Your task to perform on an android device: Do I have any events today? Image 0: 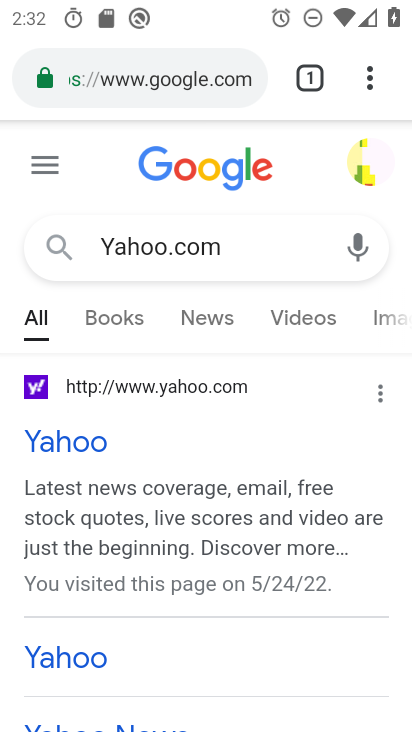
Step 0: press home button
Your task to perform on an android device: Do I have any events today? Image 1: 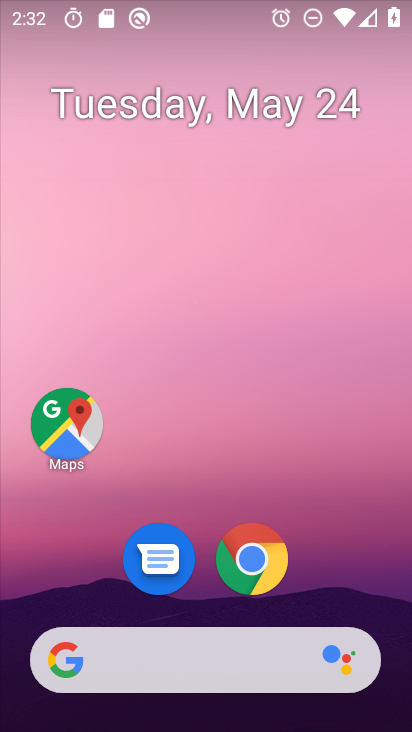
Step 1: drag from (400, 692) to (399, 264)
Your task to perform on an android device: Do I have any events today? Image 2: 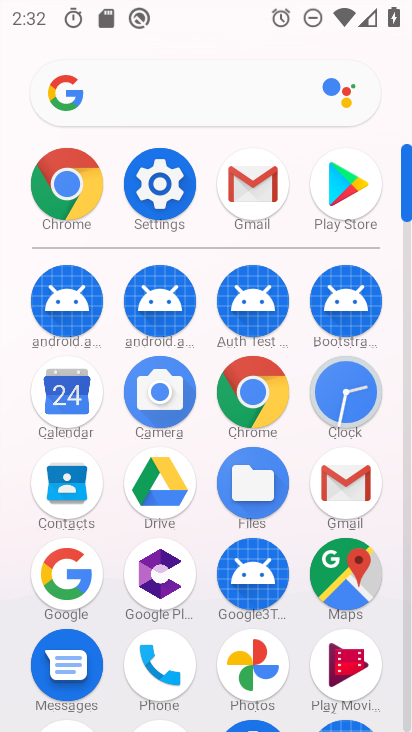
Step 2: click (58, 409)
Your task to perform on an android device: Do I have any events today? Image 3: 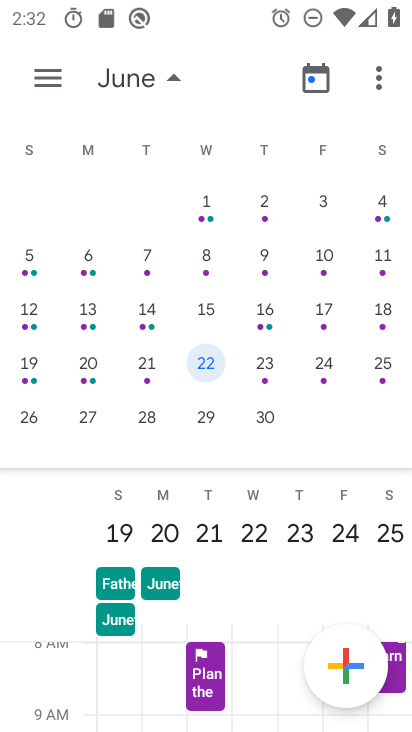
Step 3: drag from (27, 202) to (399, 242)
Your task to perform on an android device: Do I have any events today? Image 4: 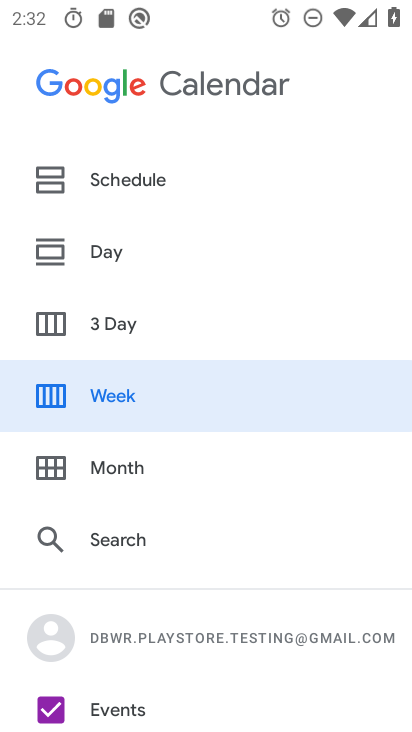
Step 4: click (86, 254)
Your task to perform on an android device: Do I have any events today? Image 5: 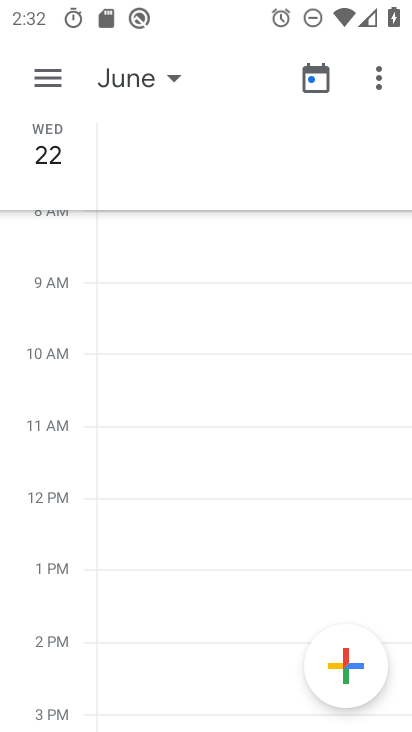
Step 5: click (170, 73)
Your task to perform on an android device: Do I have any events today? Image 6: 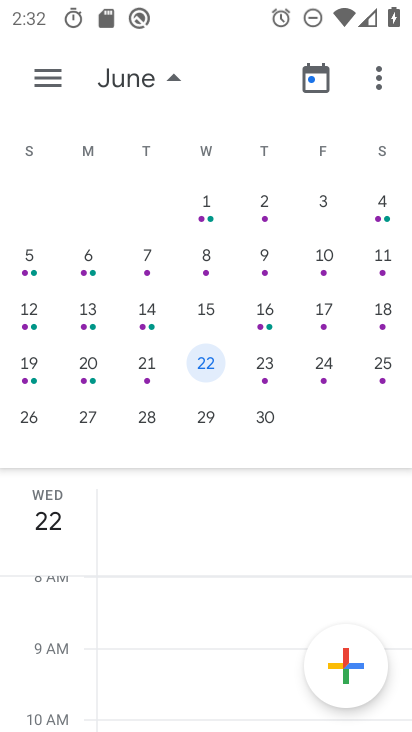
Step 6: drag from (41, 215) to (398, 211)
Your task to perform on an android device: Do I have any events today? Image 7: 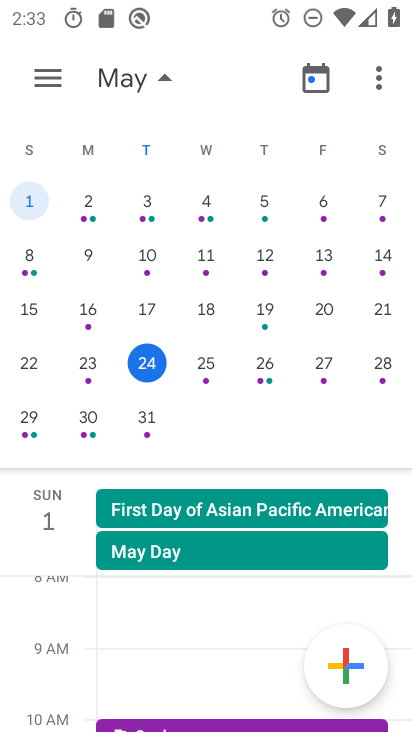
Step 7: drag from (42, 155) to (135, 173)
Your task to perform on an android device: Do I have any events today? Image 8: 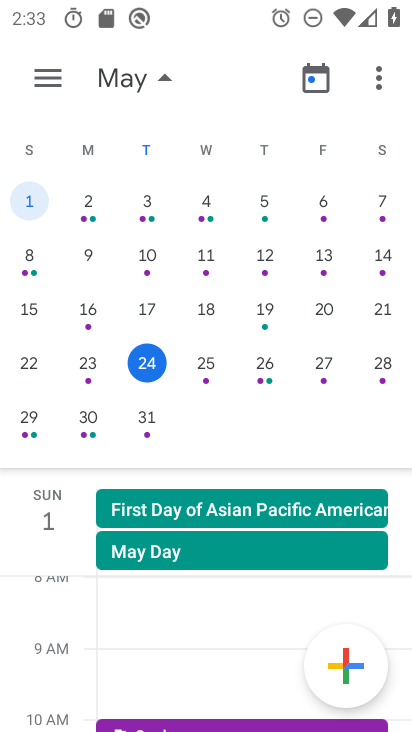
Step 8: click (37, 79)
Your task to perform on an android device: Do I have any events today? Image 9: 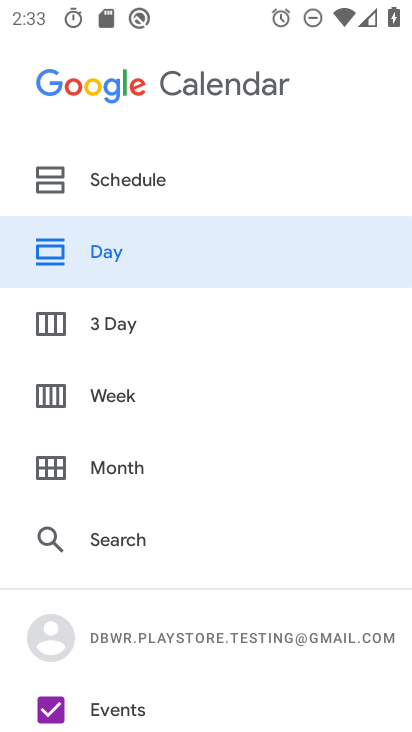
Step 9: click (121, 253)
Your task to perform on an android device: Do I have any events today? Image 10: 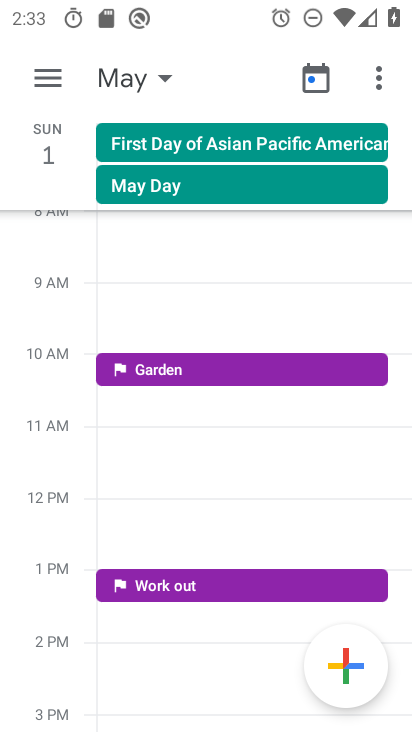
Step 10: task complete